Your task to perform on an android device: Open privacy settings Image 0: 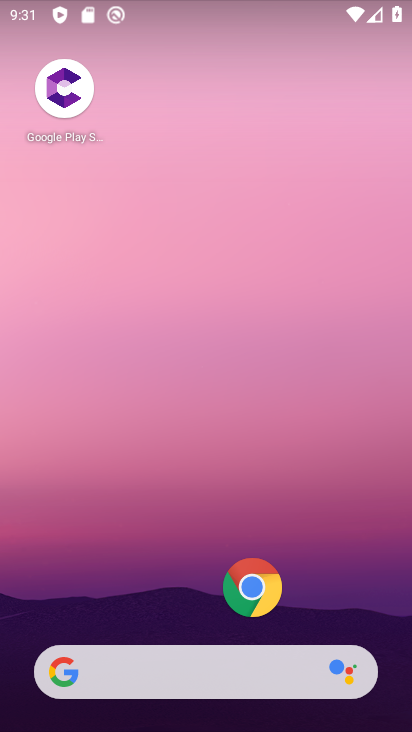
Step 0: click (300, 101)
Your task to perform on an android device: Open privacy settings Image 1: 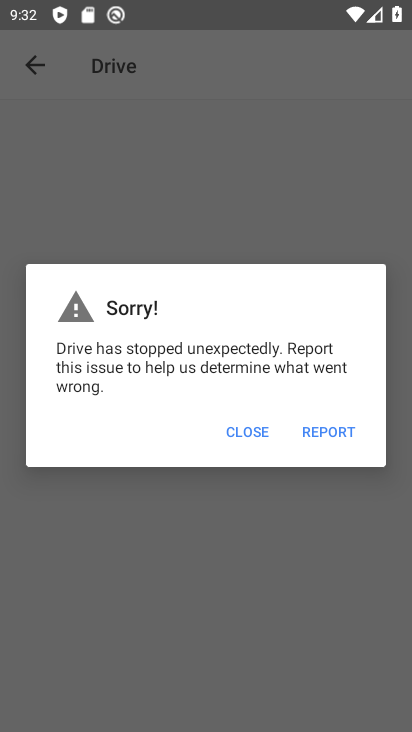
Step 1: press back button
Your task to perform on an android device: Open privacy settings Image 2: 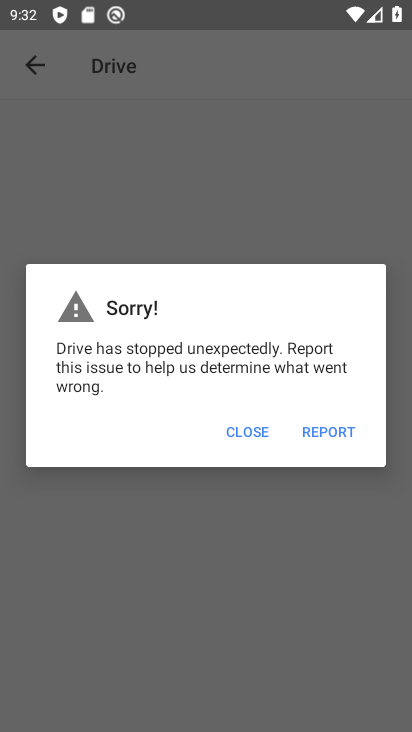
Step 2: press home button
Your task to perform on an android device: Open privacy settings Image 3: 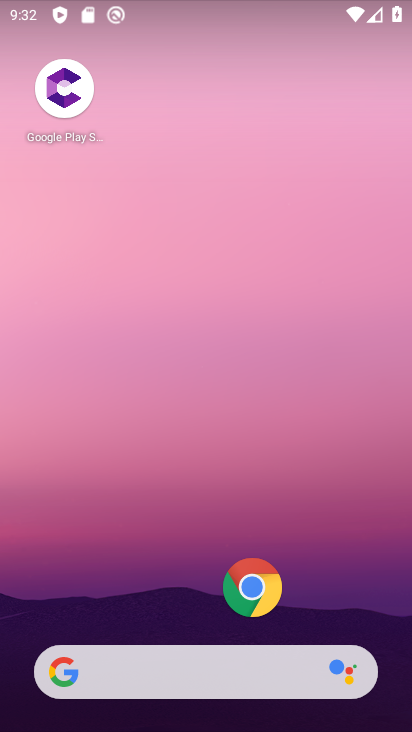
Step 3: drag from (127, 626) to (217, 197)
Your task to perform on an android device: Open privacy settings Image 4: 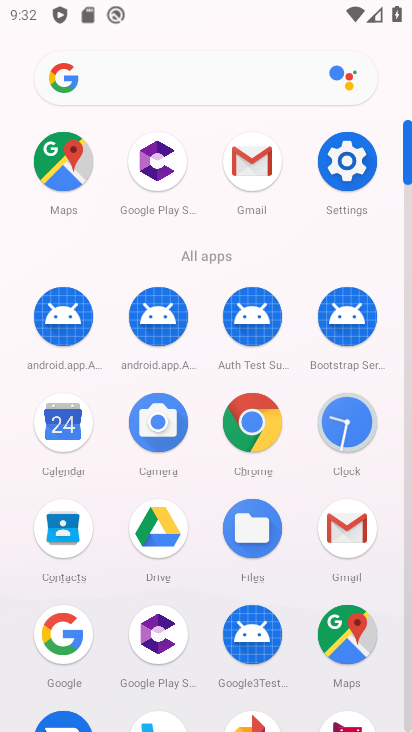
Step 4: click (267, 426)
Your task to perform on an android device: Open privacy settings Image 5: 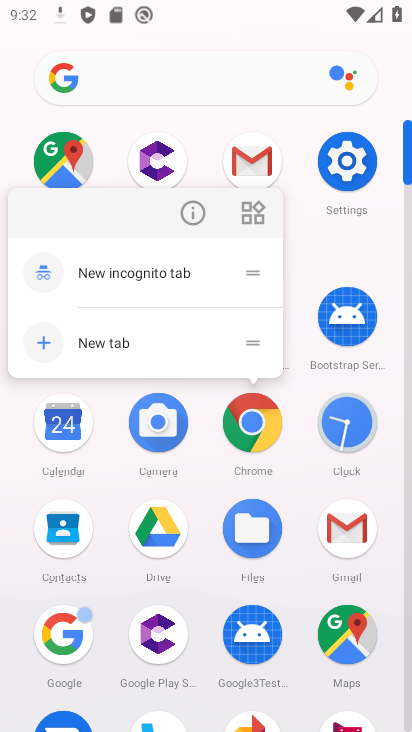
Step 5: click (270, 427)
Your task to perform on an android device: Open privacy settings Image 6: 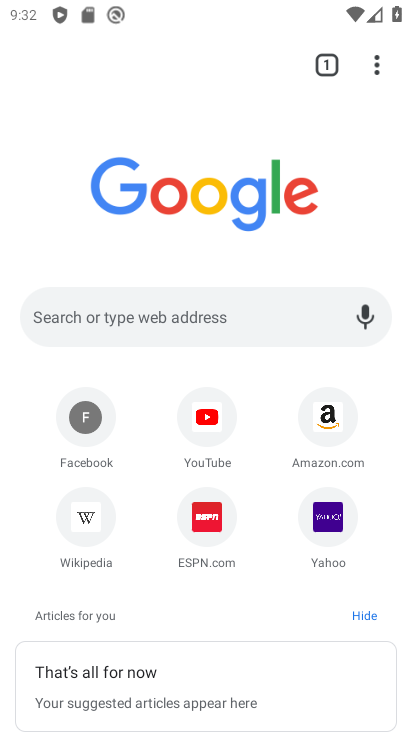
Step 6: drag from (380, 71) to (216, 545)
Your task to perform on an android device: Open privacy settings Image 7: 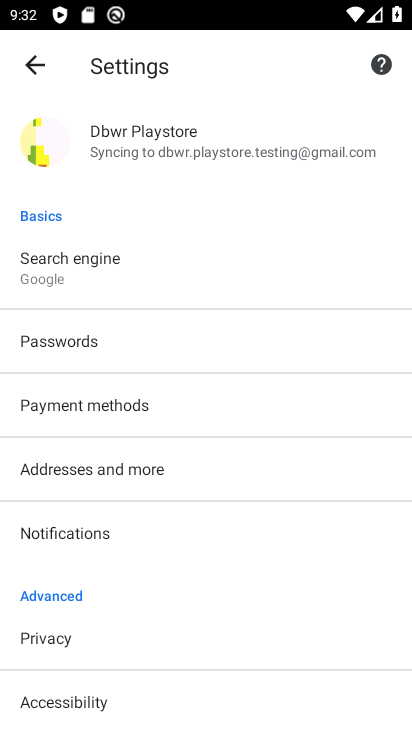
Step 7: click (138, 640)
Your task to perform on an android device: Open privacy settings Image 8: 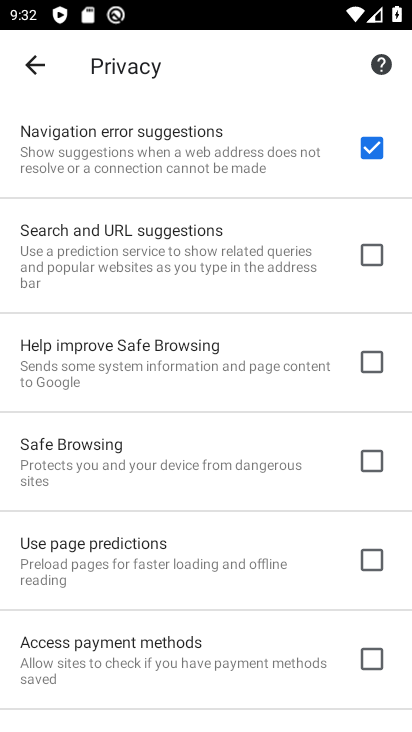
Step 8: task complete